Your task to perform on an android device: When is my next meeting? Image 0: 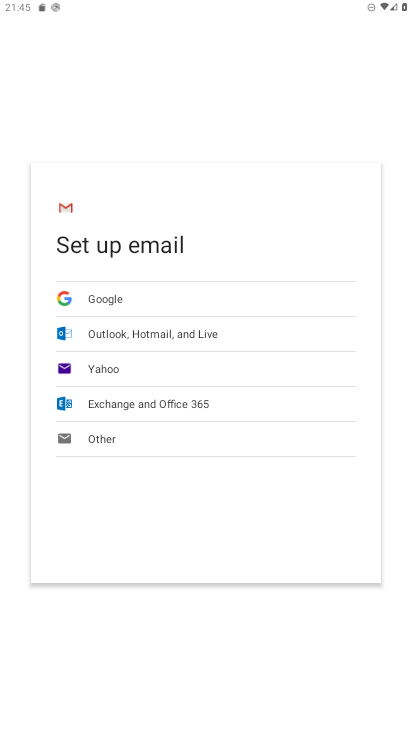
Step 0: press home button
Your task to perform on an android device: When is my next meeting? Image 1: 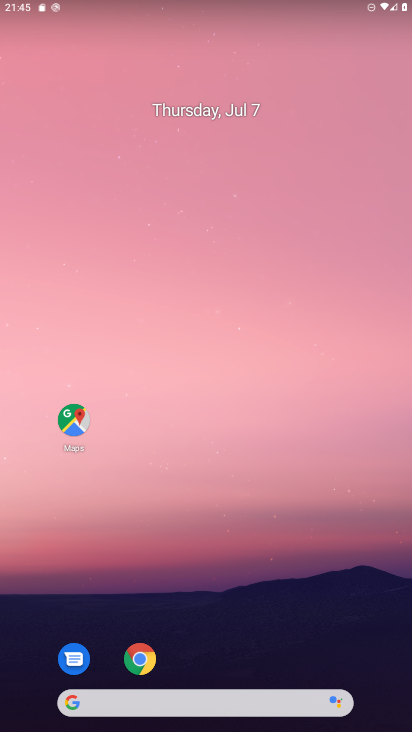
Step 1: drag from (281, 563) to (190, 118)
Your task to perform on an android device: When is my next meeting? Image 2: 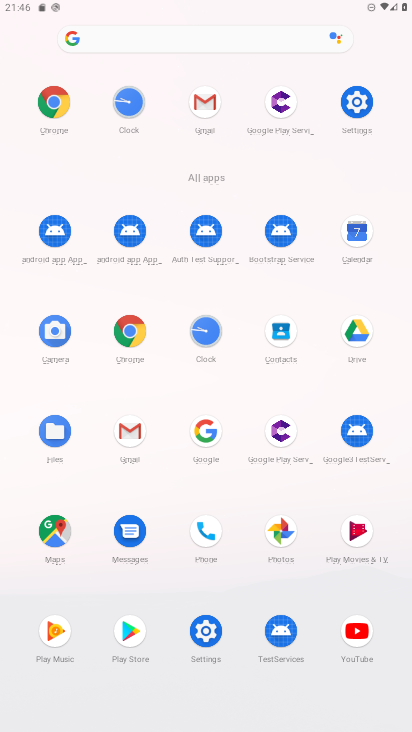
Step 2: click (360, 234)
Your task to perform on an android device: When is my next meeting? Image 3: 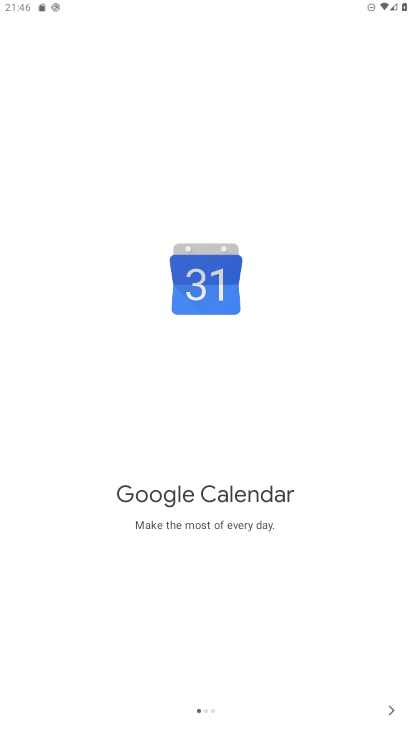
Step 3: click (397, 707)
Your task to perform on an android device: When is my next meeting? Image 4: 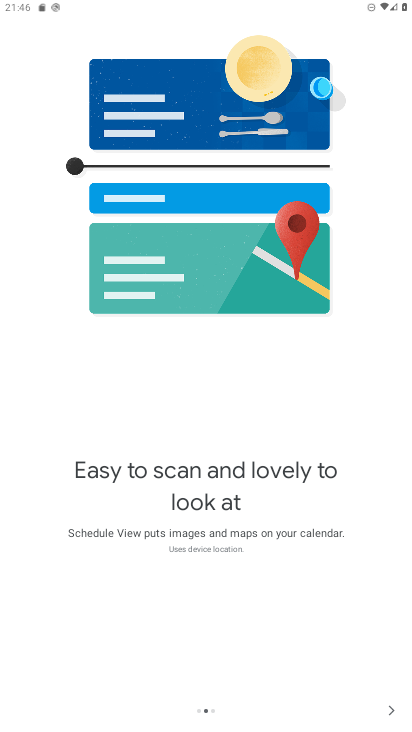
Step 4: click (397, 707)
Your task to perform on an android device: When is my next meeting? Image 5: 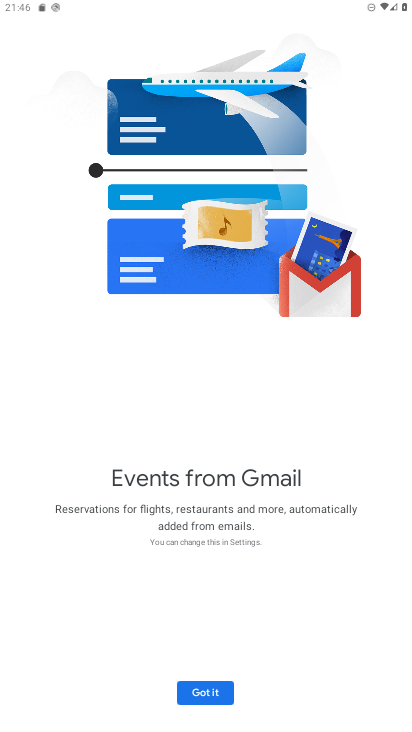
Step 5: click (214, 692)
Your task to perform on an android device: When is my next meeting? Image 6: 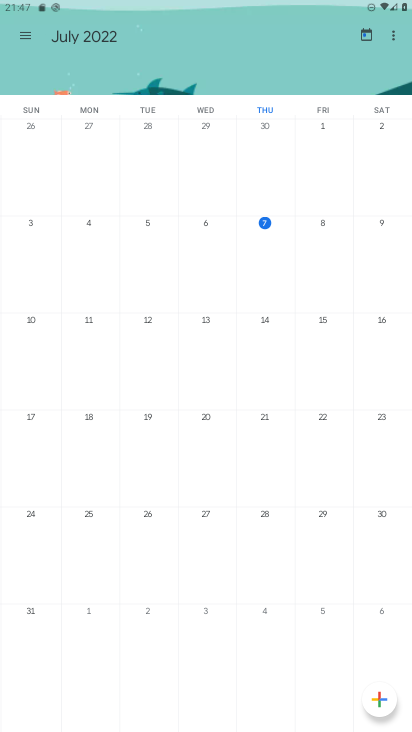
Step 6: click (267, 222)
Your task to perform on an android device: When is my next meeting? Image 7: 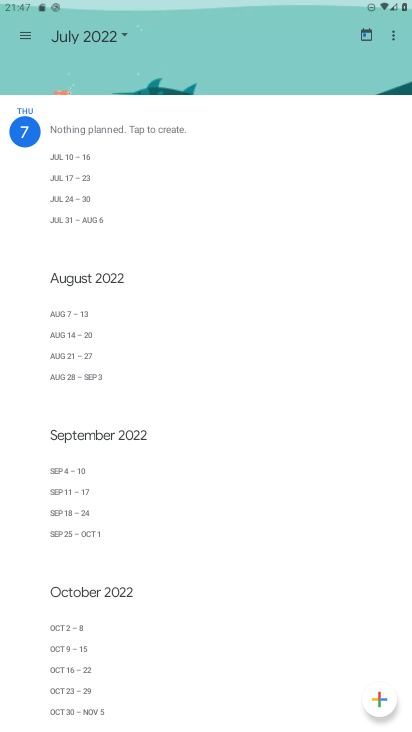
Step 7: task complete